Your task to perform on an android device: Go to battery settings Image 0: 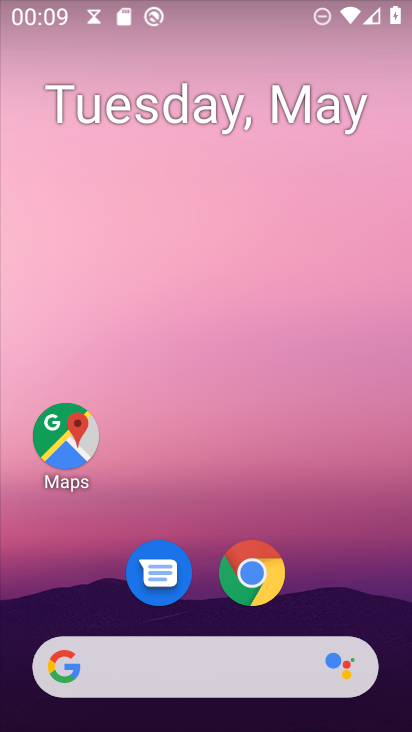
Step 0: drag from (331, 573) to (220, 63)
Your task to perform on an android device: Go to battery settings Image 1: 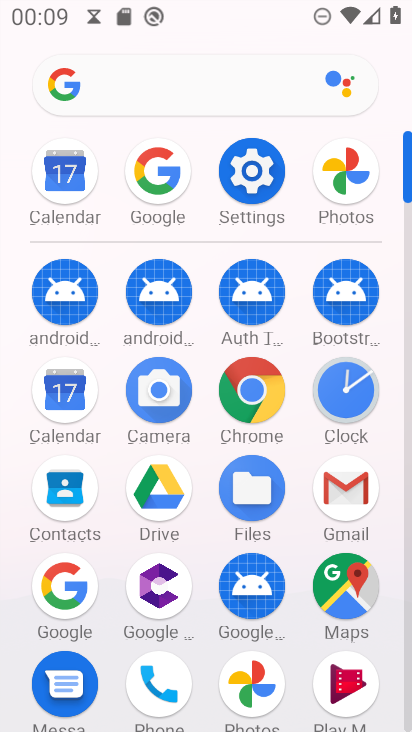
Step 1: click (252, 174)
Your task to perform on an android device: Go to battery settings Image 2: 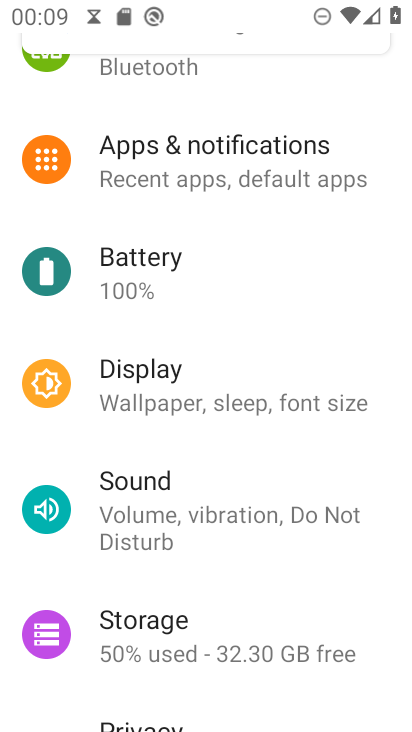
Step 2: click (211, 285)
Your task to perform on an android device: Go to battery settings Image 3: 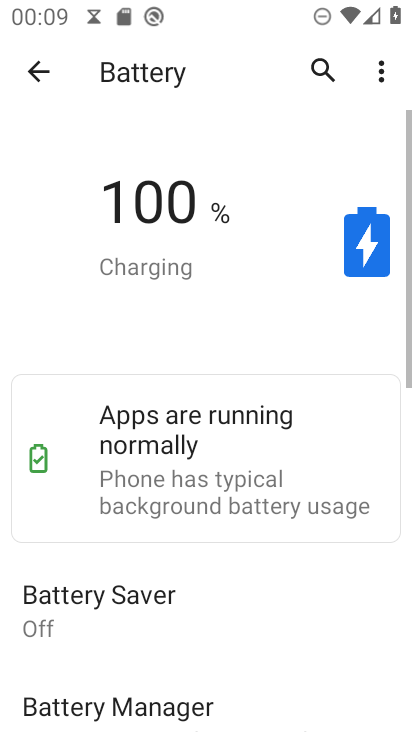
Step 3: task complete